Your task to perform on an android device: When is my next appointment? Image 0: 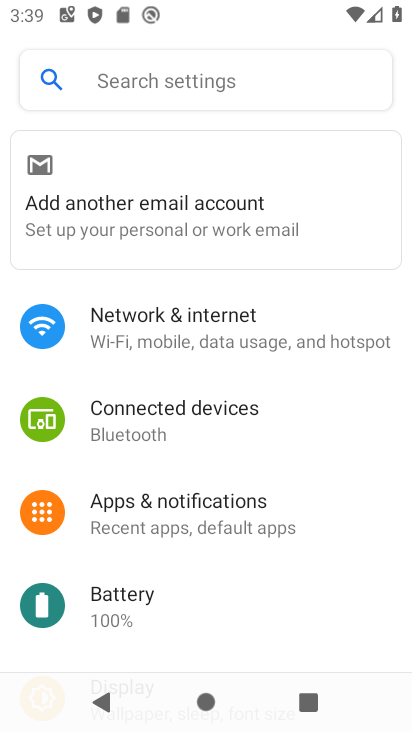
Step 0: press home button
Your task to perform on an android device: When is my next appointment? Image 1: 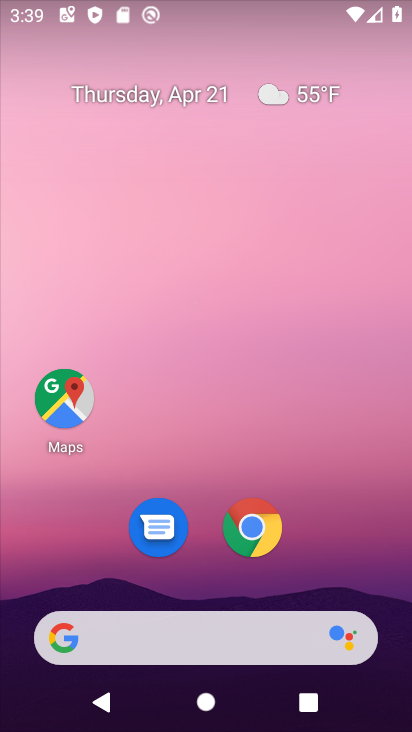
Step 1: drag from (378, 570) to (266, 111)
Your task to perform on an android device: When is my next appointment? Image 2: 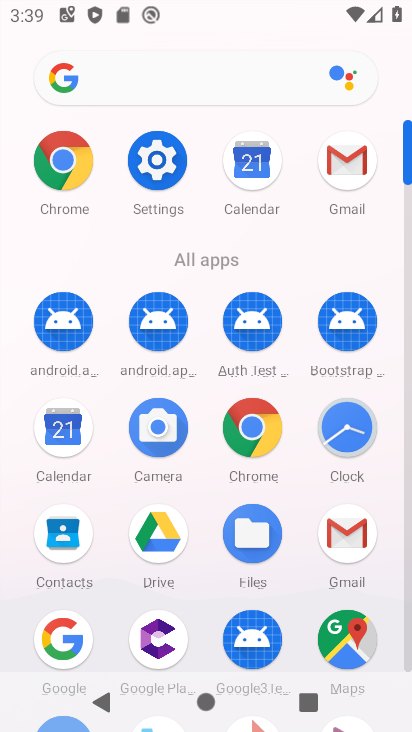
Step 2: click (55, 434)
Your task to perform on an android device: When is my next appointment? Image 3: 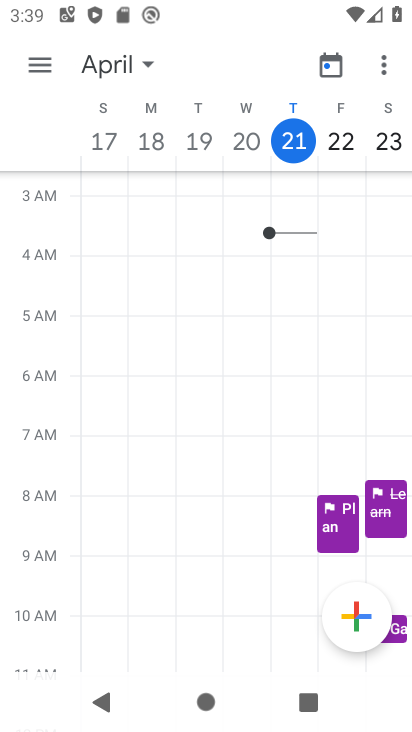
Step 3: click (40, 75)
Your task to perform on an android device: When is my next appointment? Image 4: 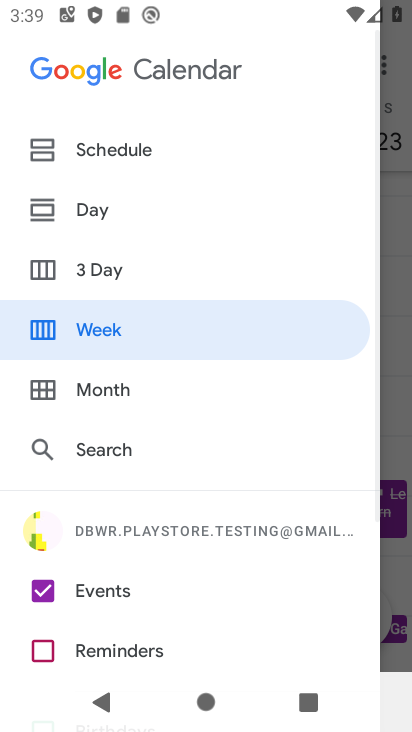
Step 4: click (88, 149)
Your task to perform on an android device: When is my next appointment? Image 5: 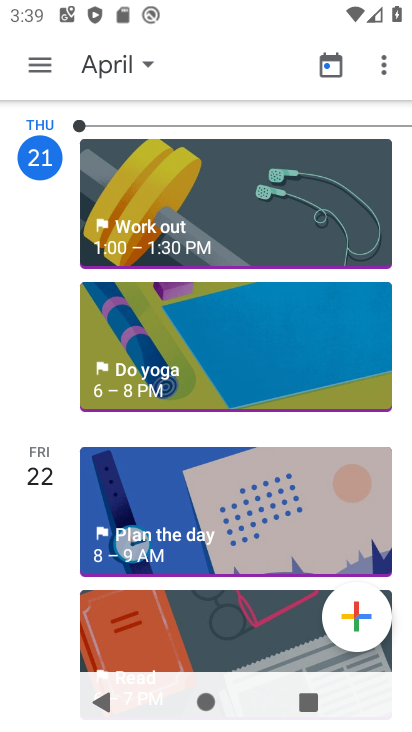
Step 5: task complete